Your task to perform on an android device: turn pop-ups off in chrome Image 0: 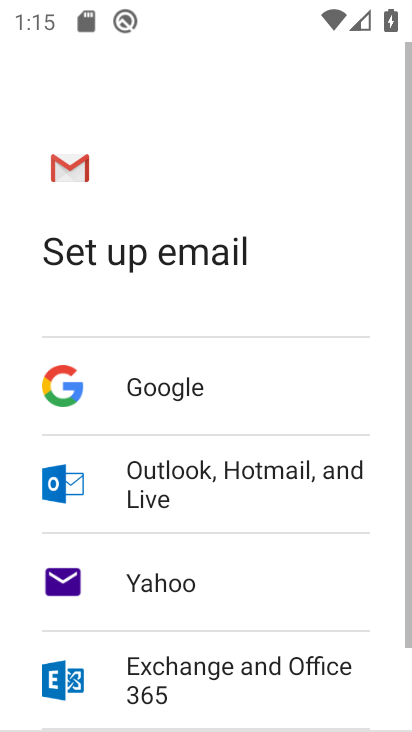
Step 0: press home button
Your task to perform on an android device: turn pop-ups off in chrome Image 1: 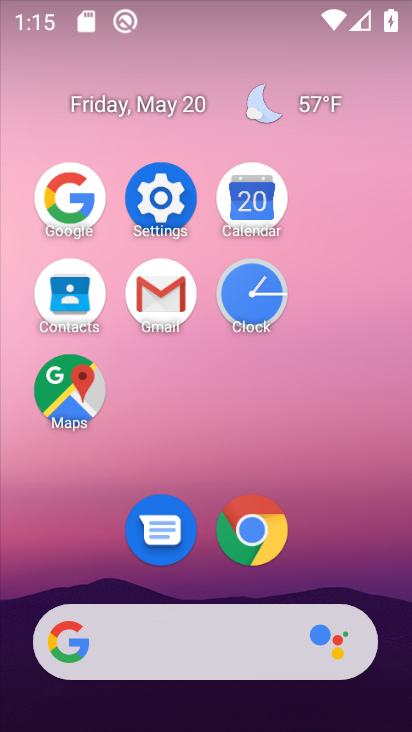
Step 1: click (247, 516)
Your task to perform on an android device: turn pop-ups off in chrome Image 2: 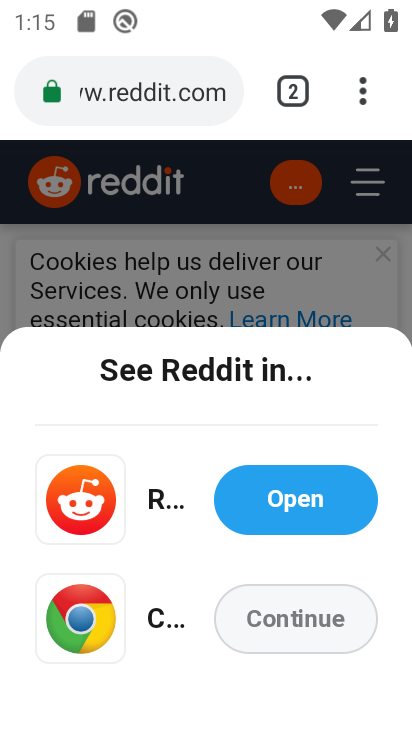
Step 2: click (371, 84)
Your task to perform on an android device: turn pop-ups off in chrome Image 3: 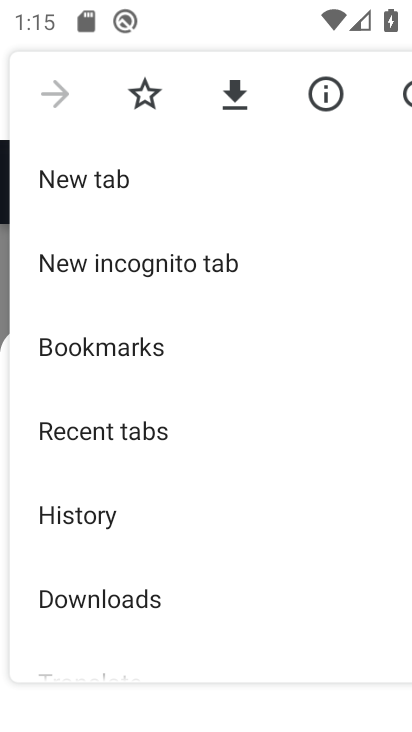
Step 3: drag from (218, 449) to (222, 110)
Your task to perform on an android device: turn pop-ups off in chrome Image 4: 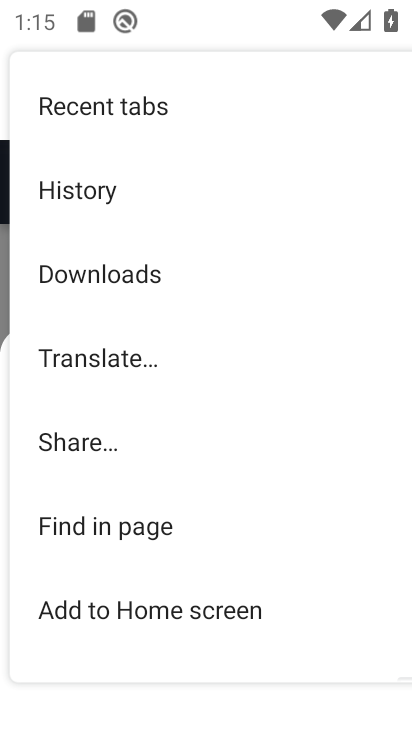
Step 4: drag from (144, 477) to (214, 132)
Your task to perform on an android device: turn pop-ups off in chrome Image 5: 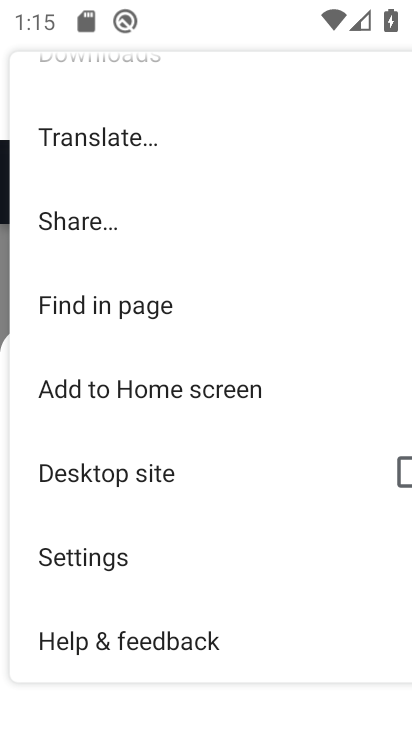
Step 5: click (191, 550)
Your task to perform on an android device: turn pop-ups off in chrome Image 6: 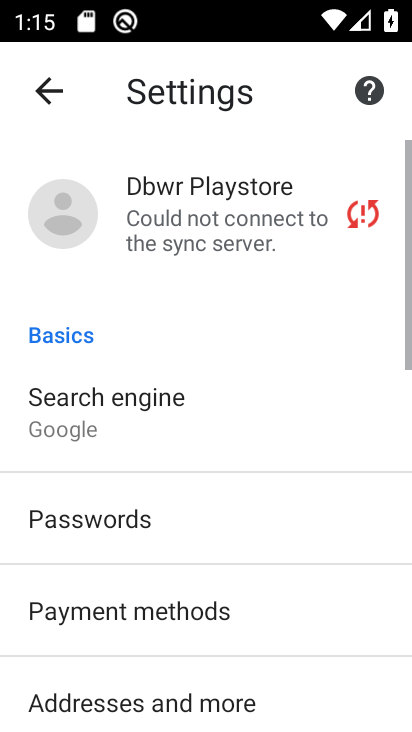
Step 6: drag from (183, 507) to (216, 147)
Your task to perform on an android device: turn pop-ups off in chrome Image 7: 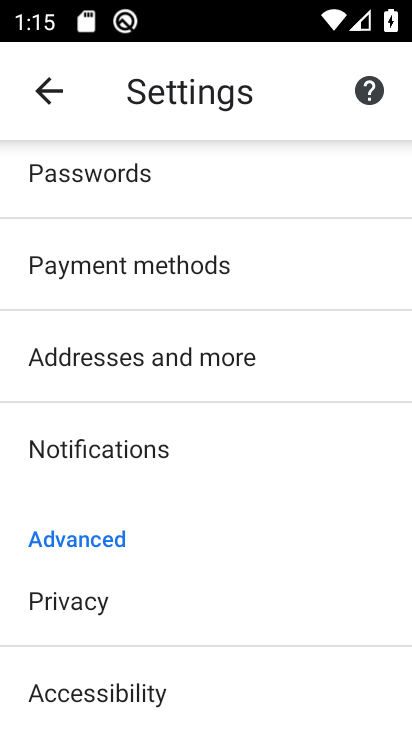
Step 7: drag from (225, 589) to (240, 150)
Your task to perform on an android device: turn pop-ups off in chrome Image 8: 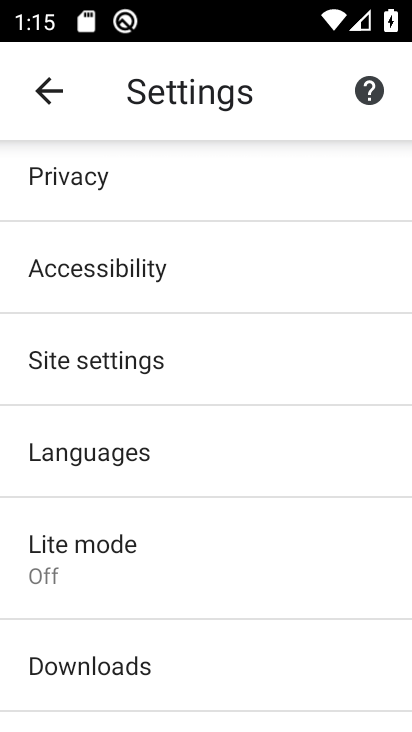
Step 8: click (215, 365)
Your task to perform on an android device: turn pop-ups off in chrome Image 9: 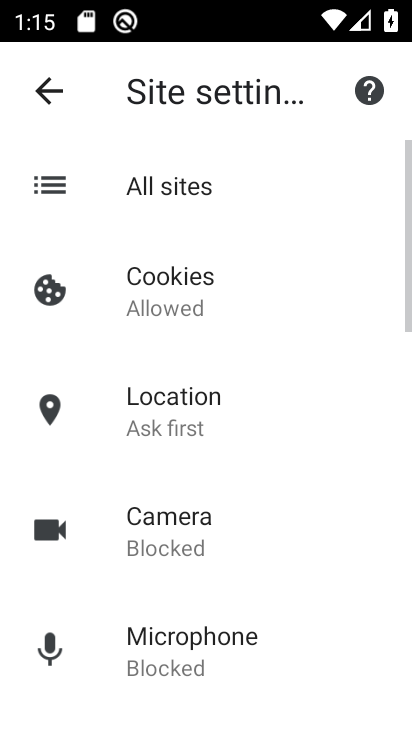
Step 9: drag from (266, 562) to (229, 131)
Your task to perform on an android device: turn pop-ups off in chrome Image 10: 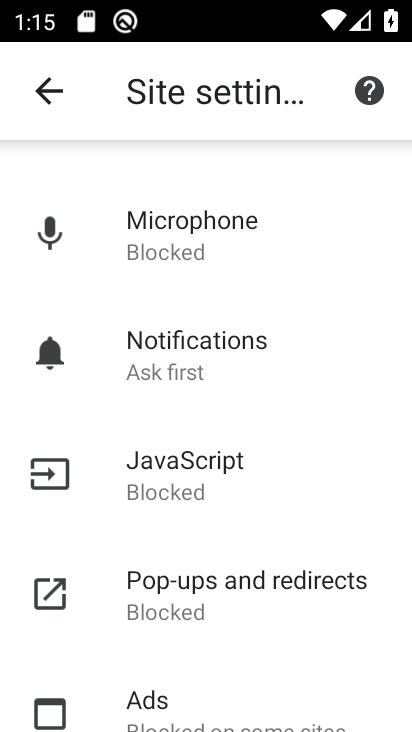
Step 10: drag from (259, 544) to (262, 267)
Your task to perform on an android device: turn pop-ups off in chrome Image 11: 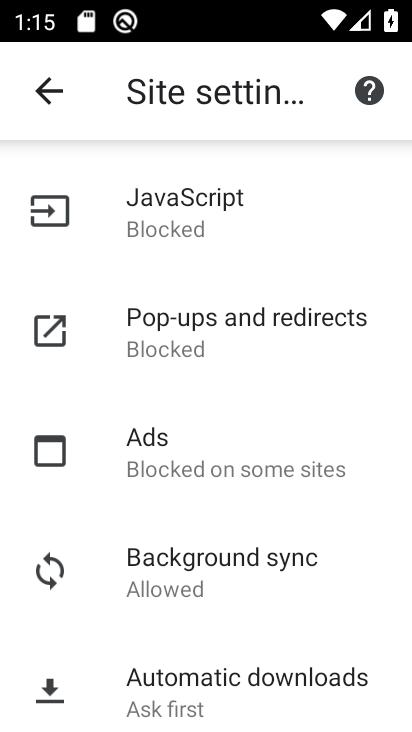
Step 11: click (267, 351)
Your task to perform on an android device: turn pop-ups off in chrome Image 12: 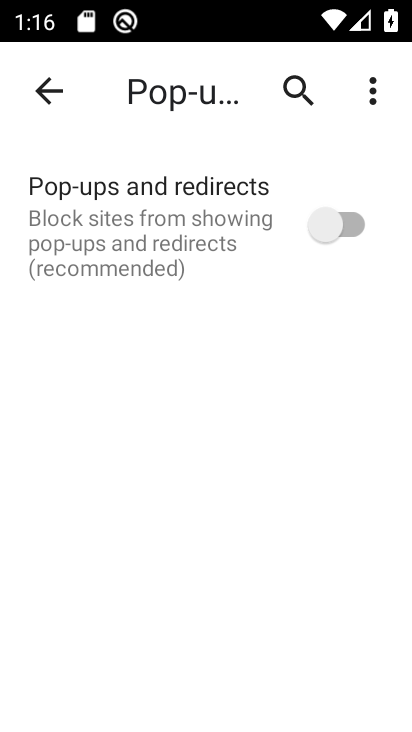
Step 12: task complete